Your task to perform on an android device: open app "eBay: The shopping marketplace" (install if not already installed), go to login, and select forgot password Image 0: 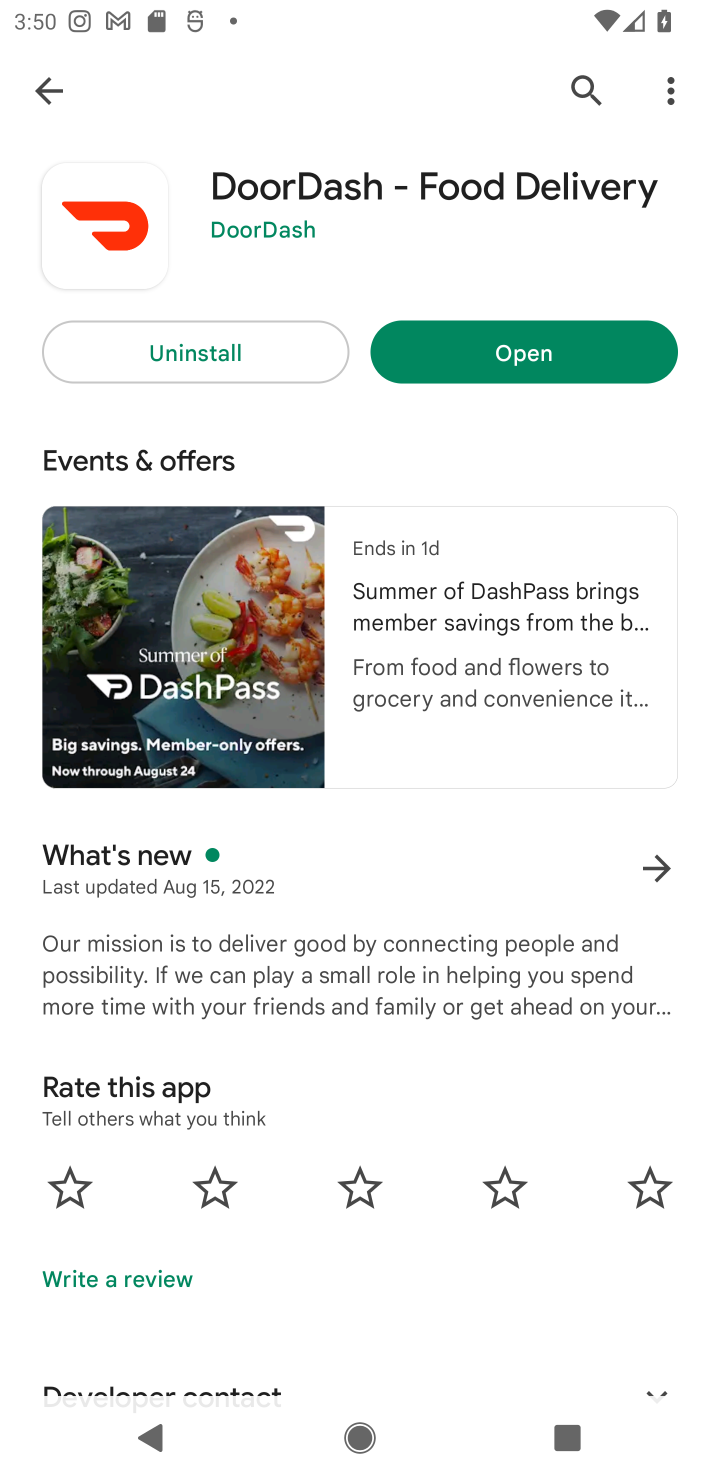
Step 0: press home button
Your task to perform on an android device: open app "eBay: The shopping marketplace" (install if not already installed), go to login, and select forgot password Image 1: 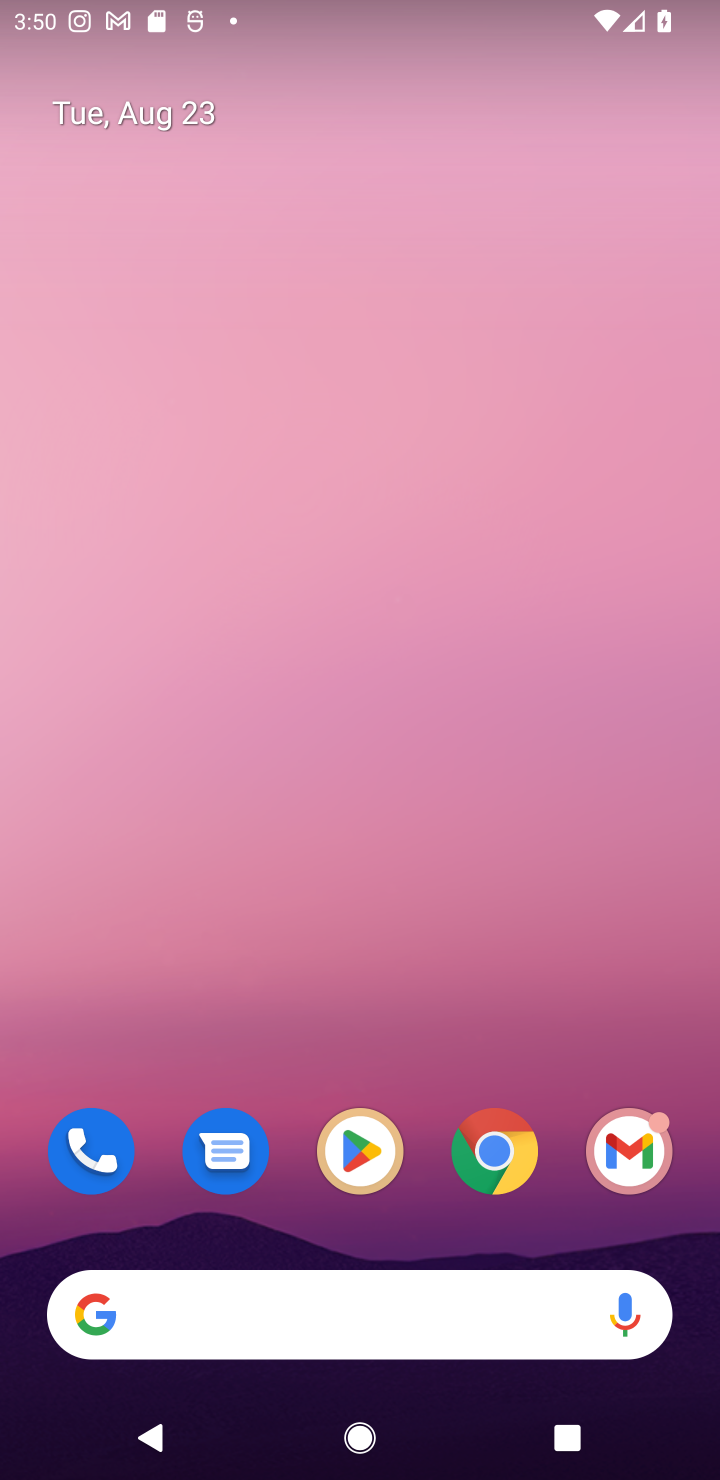
Step 1: click (361, 1155)
Your task to perform on an android device: open app "eBay: The shopping marketplace" (install if not already installed), go to login, and select forgot password Image 2: 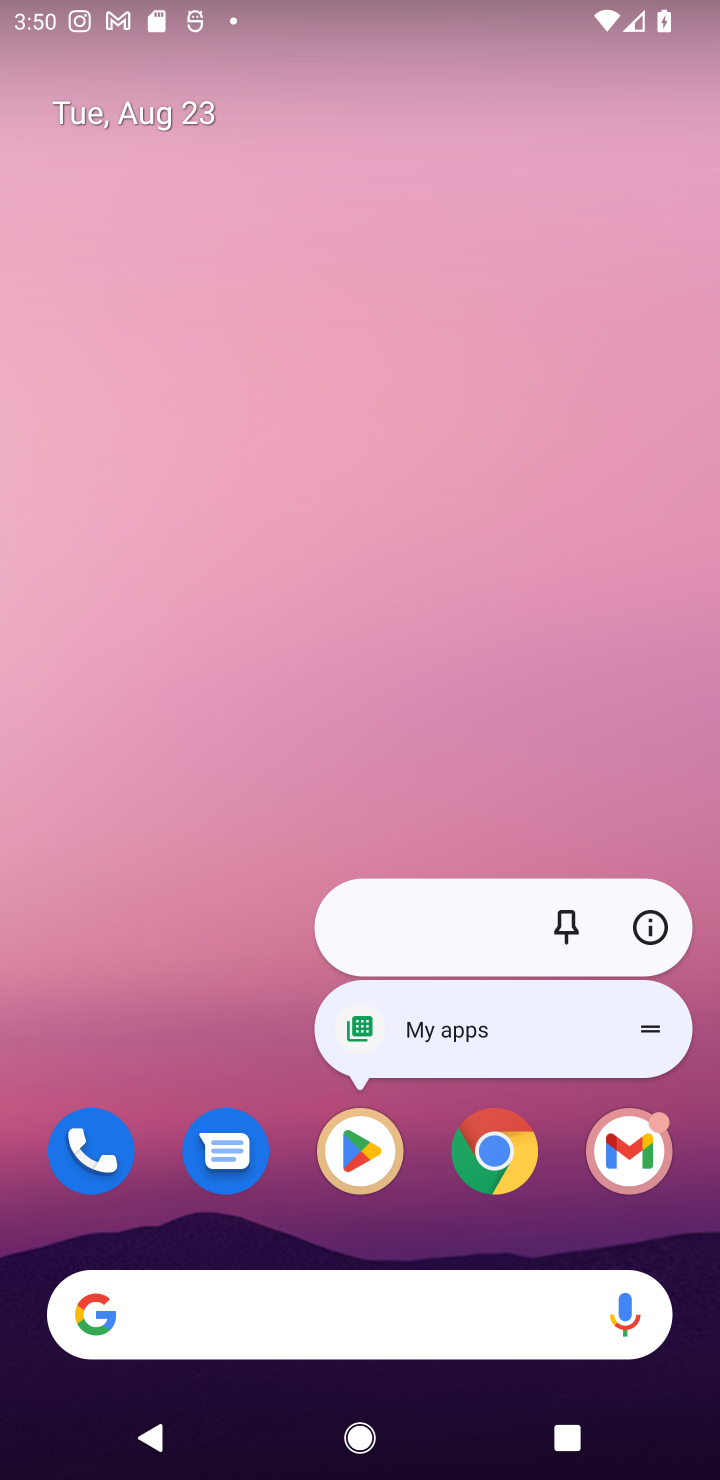
Step 2: click (361, 1161)
Your task to perform on an android device: open app "eBay: The shopping marketplace" (install if not already installed), go to login, and select forgot password Image 3: 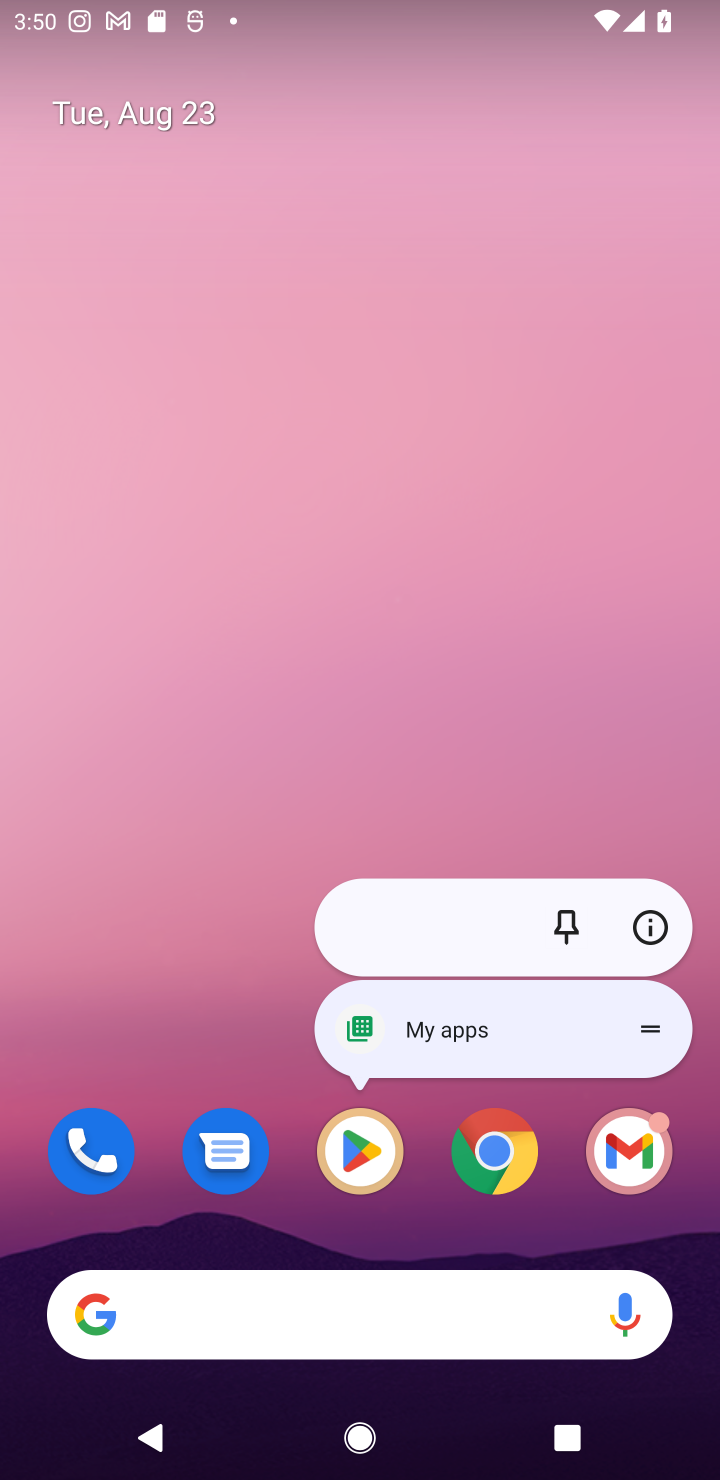
Step 3: click (361, 1161)
Your task to perform on an android device: open app "eBay: The shopping marketplace" (install if not already installed), go to login, and select forgot password Image 4: 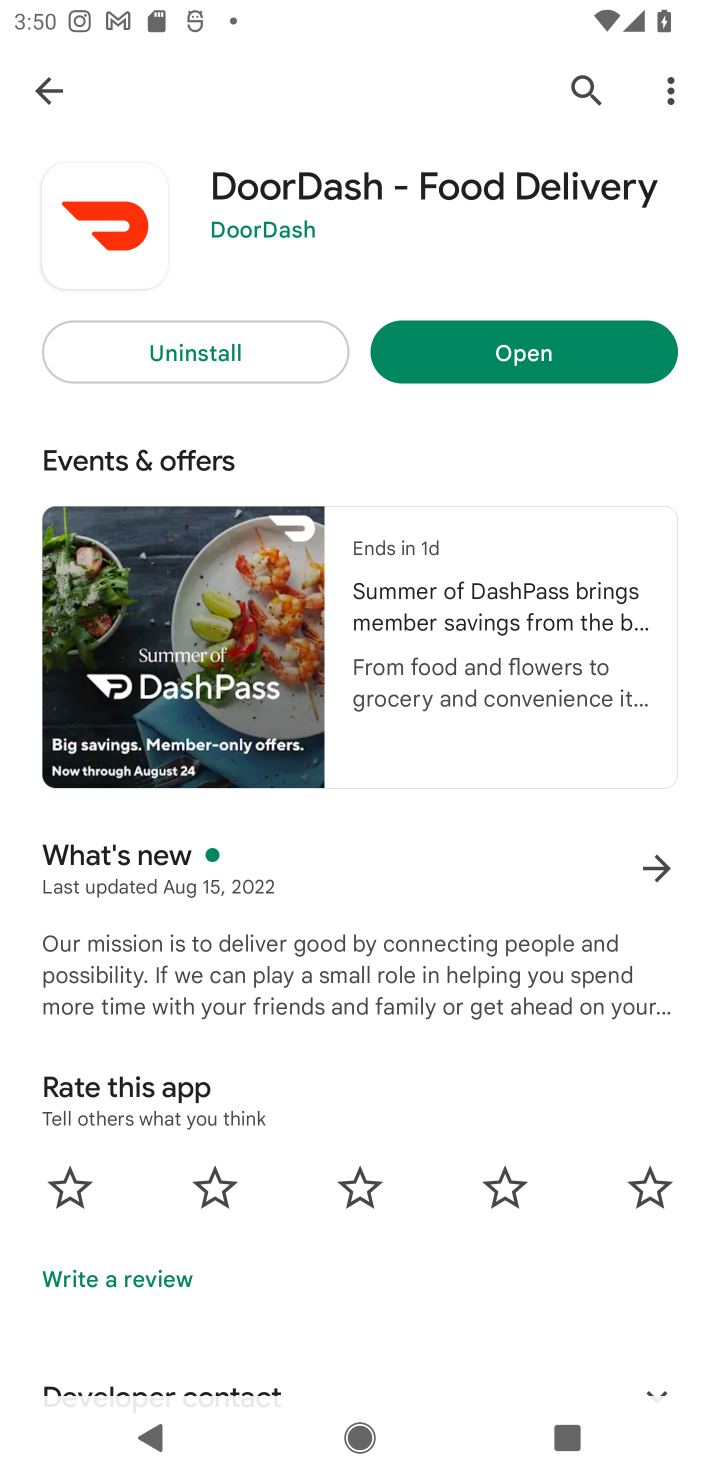
Step 4: click (588, 86)
Your task to perform on an android device: open app "eBay: The shopping marketplace" (install if not already installed), go to login, and select forgot password Image 5: 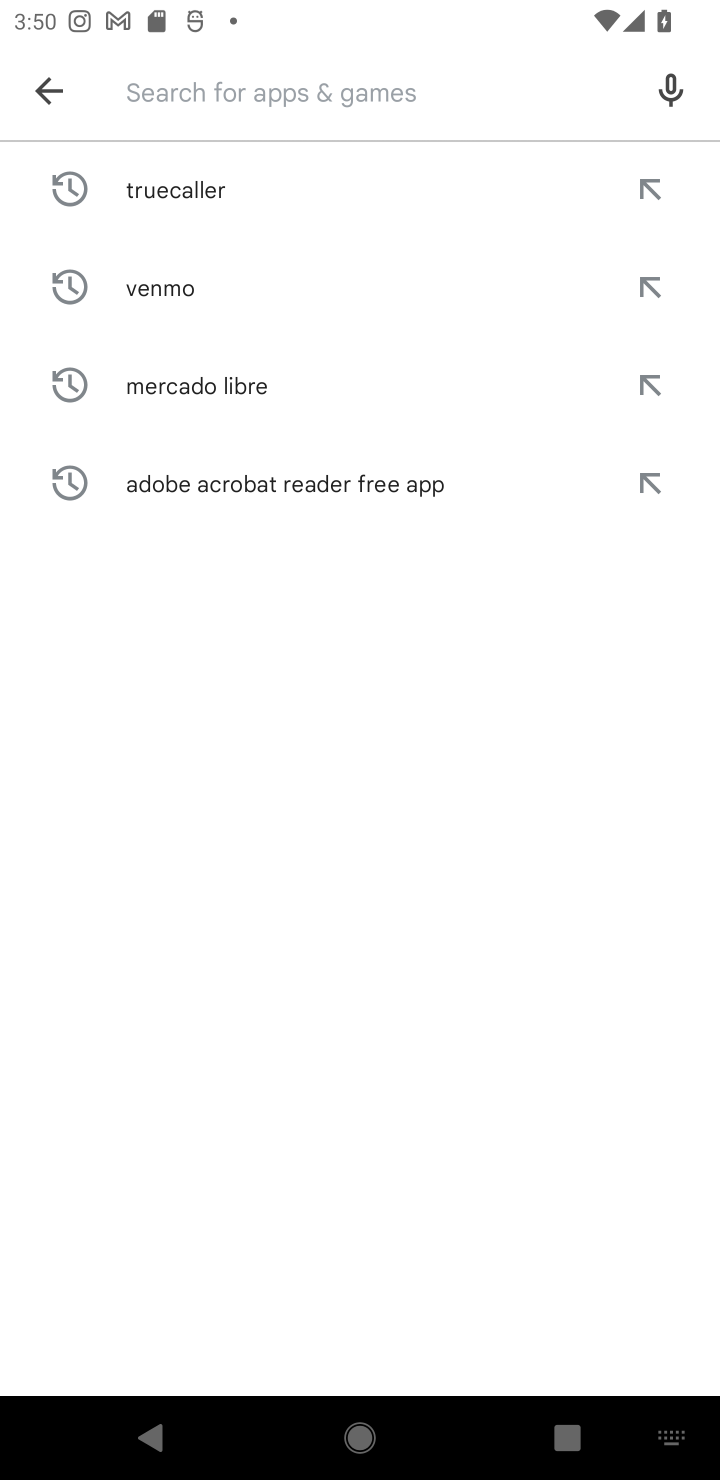
Step 5: type "eBay: The shopping marketplace"
Your task to perform on an android device: open app "eBay: The shopping marketplace" (install if not already installed), go to login, and select forgot password Image 6: 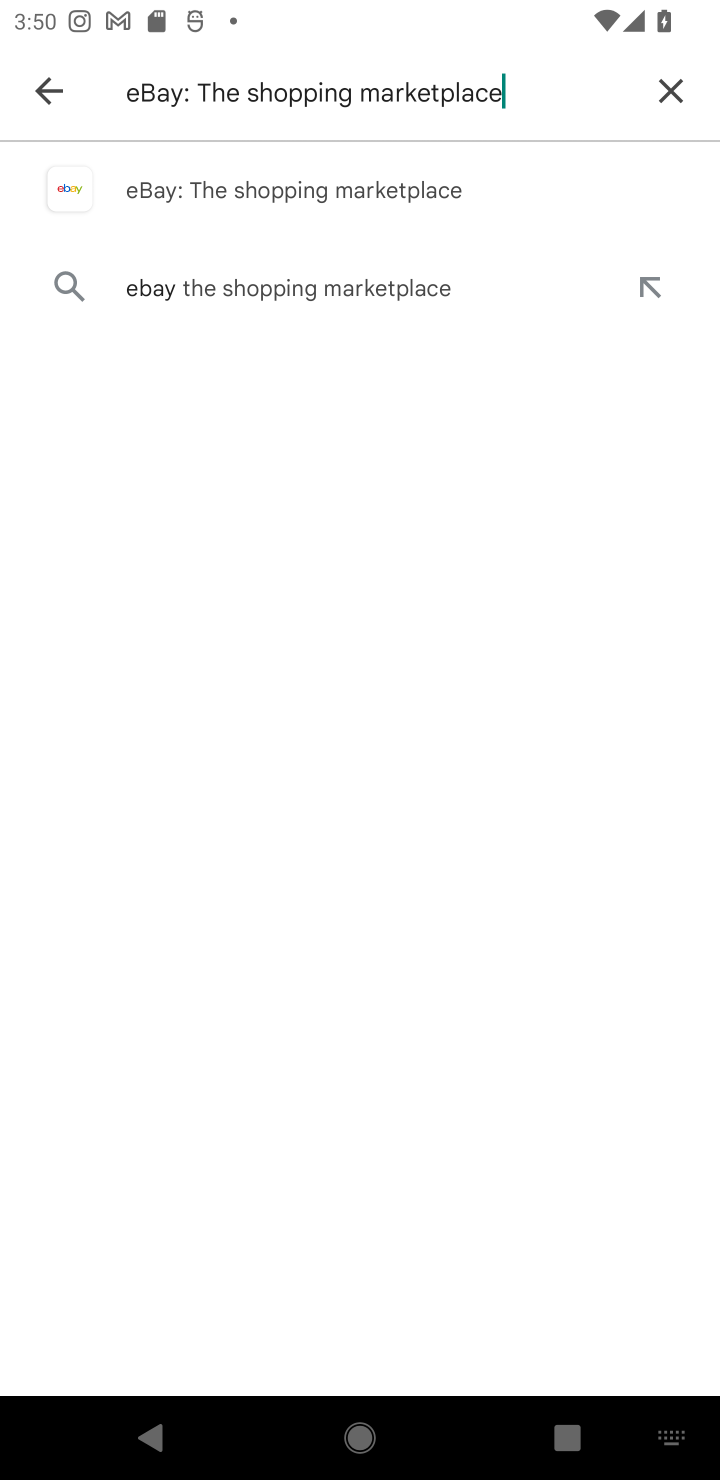
Step 6: click (239, 193)
Your task to perform on an android device: open app "eBay: The shopping marketplace" (install if not already installed), go to login, and select forgot password Image 7: 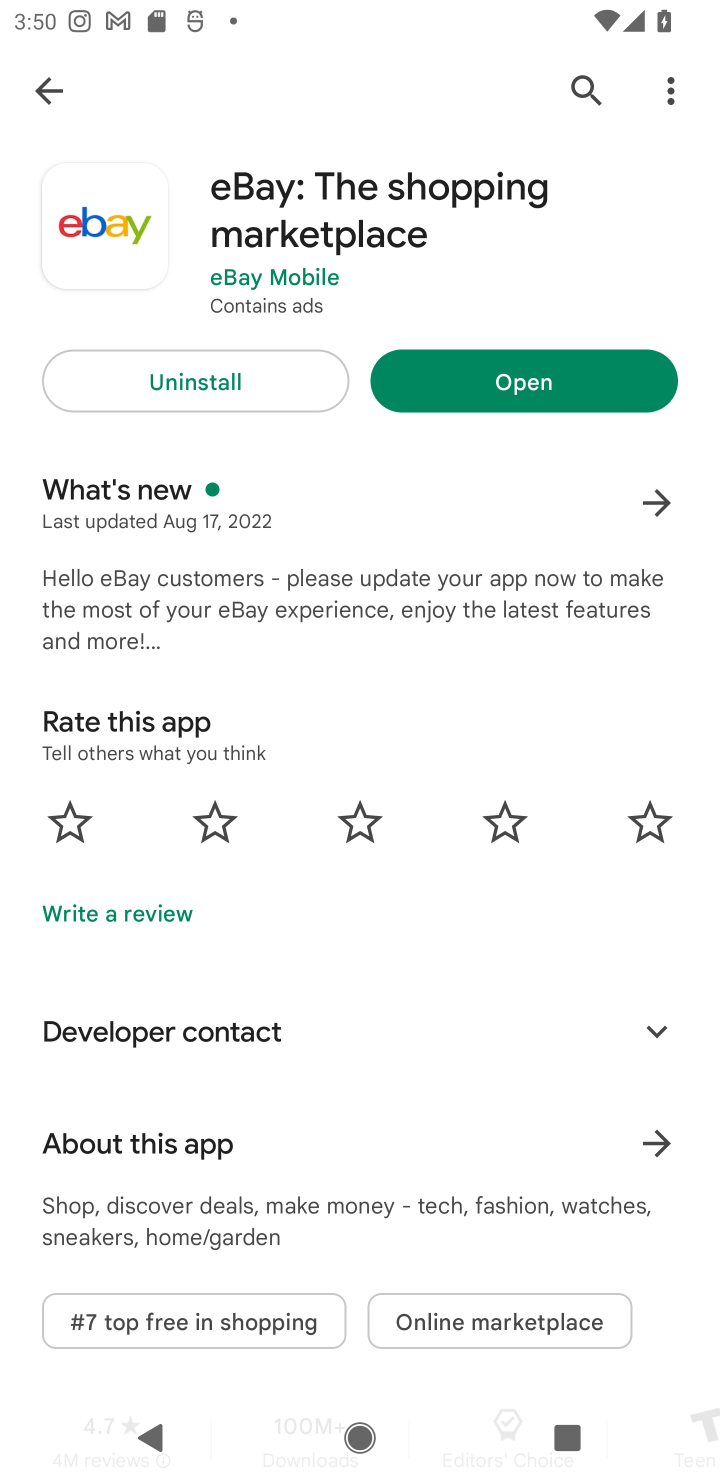
Step 7: click (516, 383)
Your task to perform on an android device: open app "eBay: The shopping marketplace" (install if not already installed), go to login, and select forgot password Image 8: 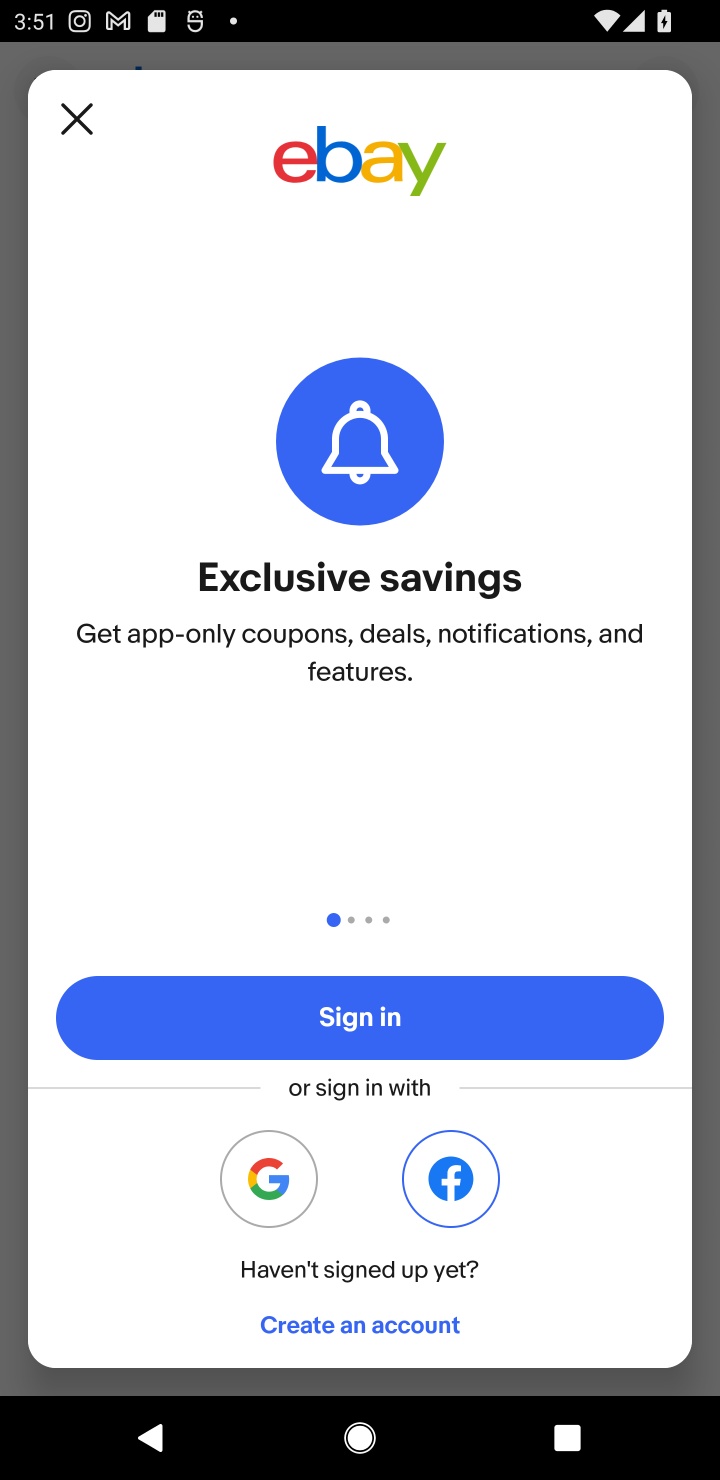
Step 8: click (375, 1019)
Your task to perform on an android device: open app "eBay: The shopping marketplace" (install if not already installed), go to login, and select forgot password Image 9: 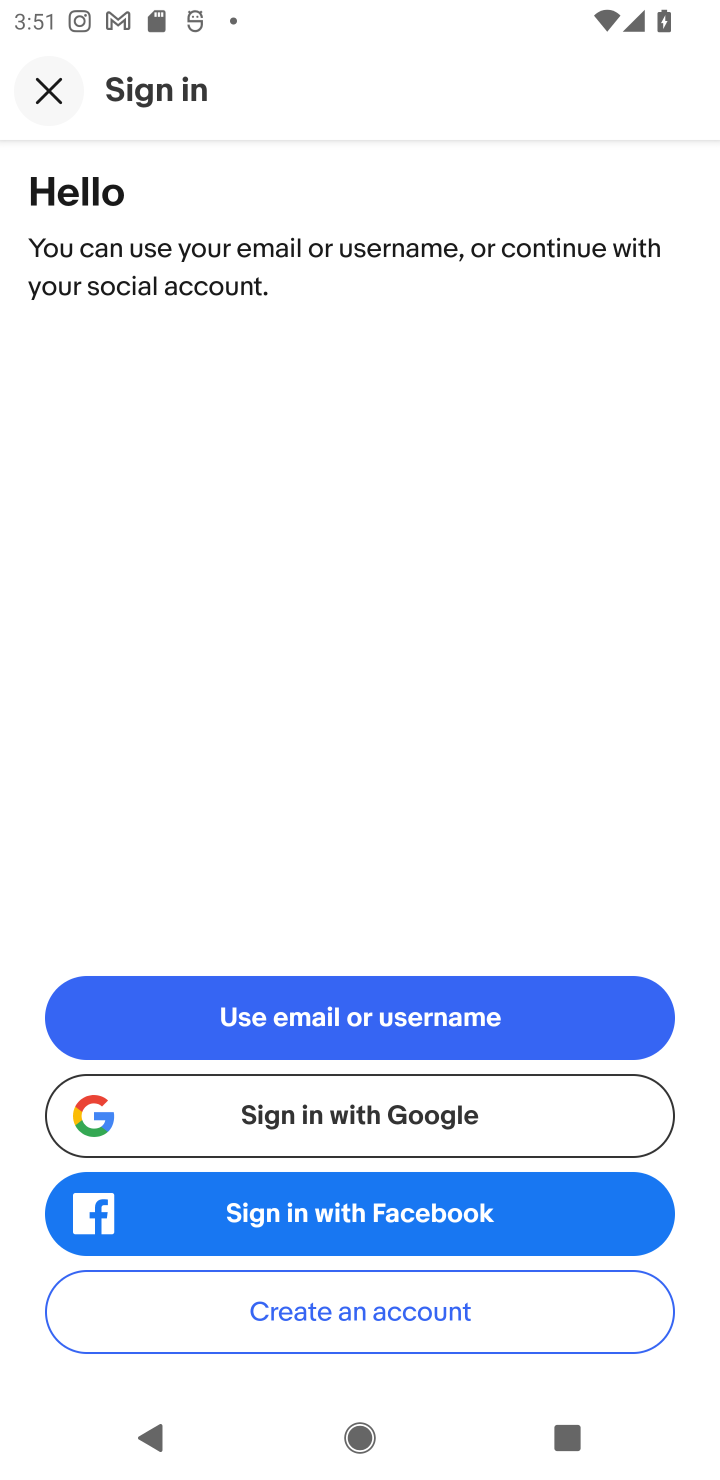
Step 9: click (463, 1011)
Your task to perform on an android device: open app "eBay: The shopping marketplace" (install if not already installed), go to login, and select forgot password Image 10: 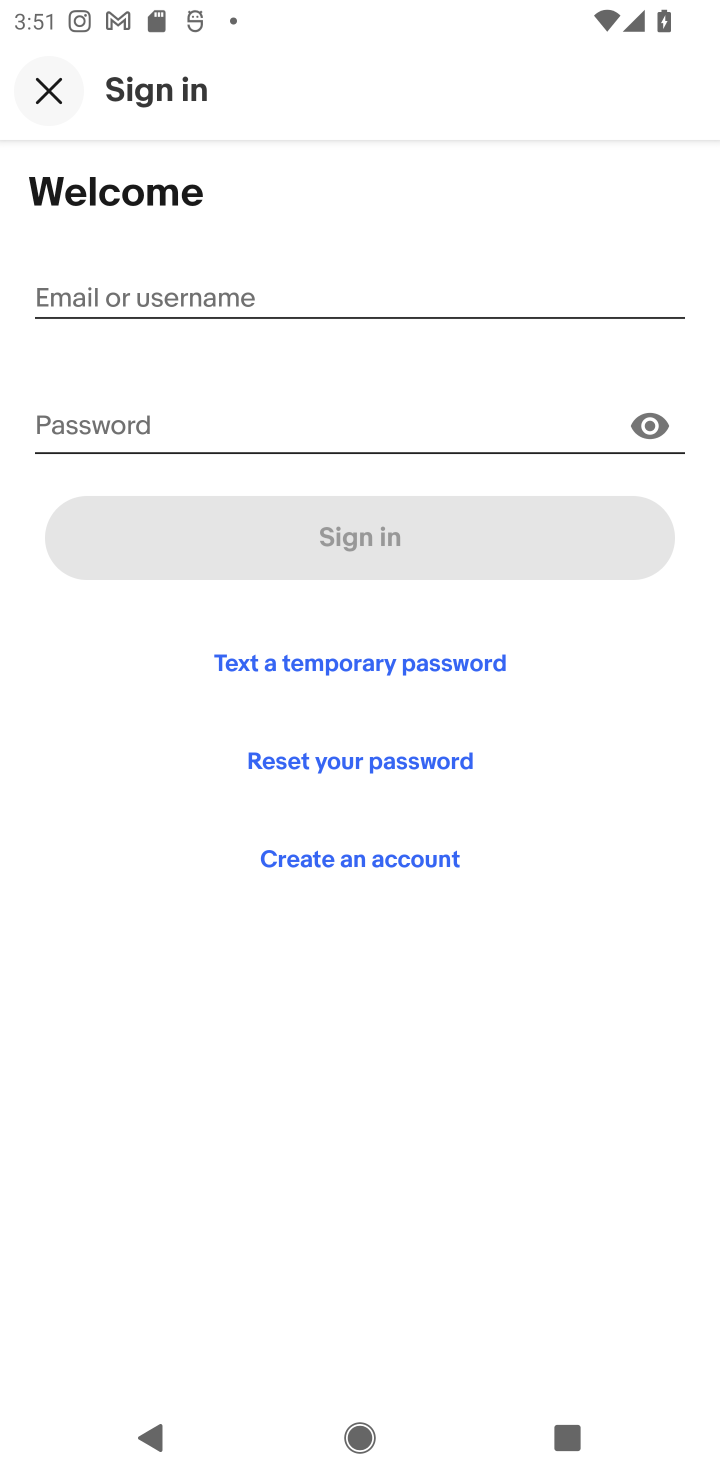
Step 10: task complete